Your task to perform on an android device: Turn on the flashlight Image 0: 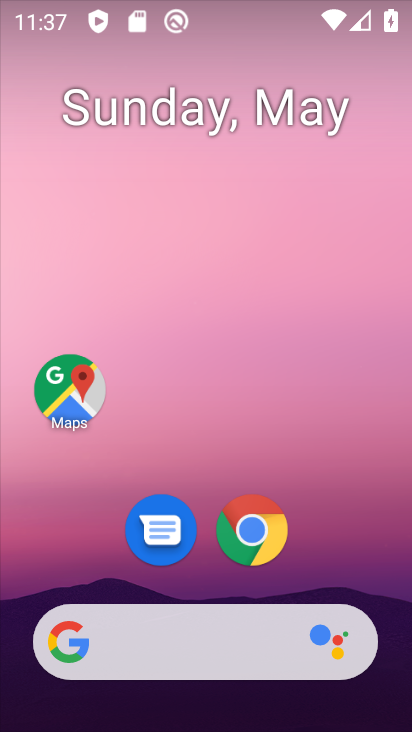
Step 0: drag from (220, 520) to (303, 37)
Your task to perform on an android device: Turn on the flashlight Image 1: 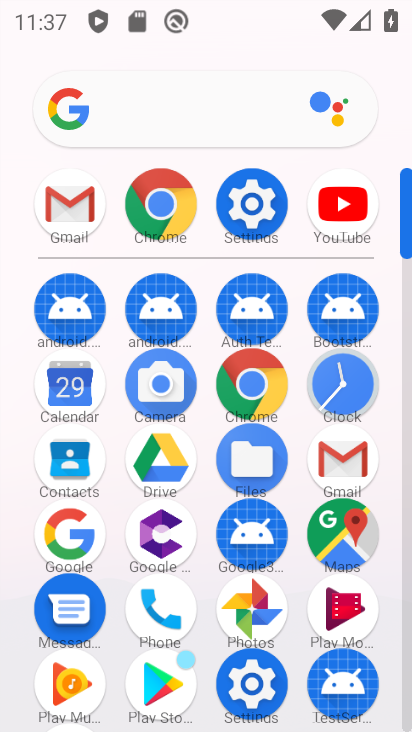
Step 1: click (244, 194)
Your task to perform on an android device: Turn on the flashlight Image 2: 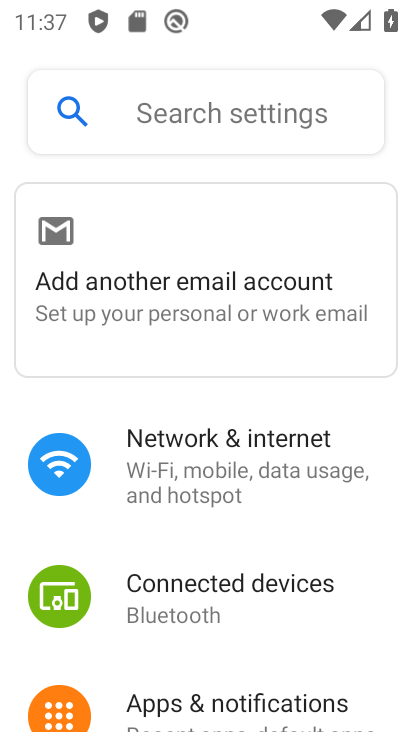
Step 2: click (158, 114)
Your task to perform on an android device: Turn on the flashlight Image 3: 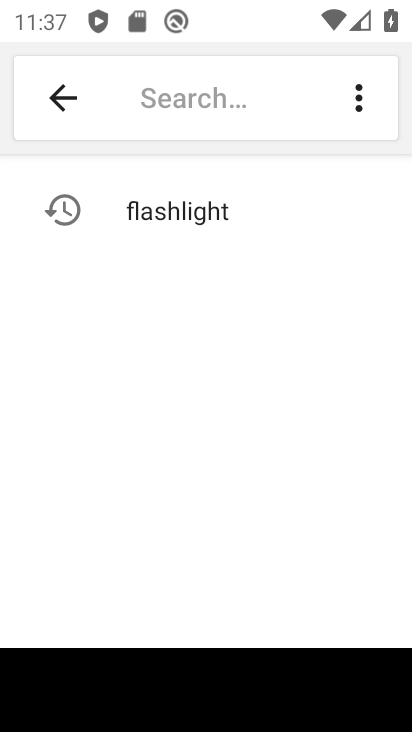
Step 3: type "flashlight"
Your task to perform on an android device: Turn on the flashlight Image 4: 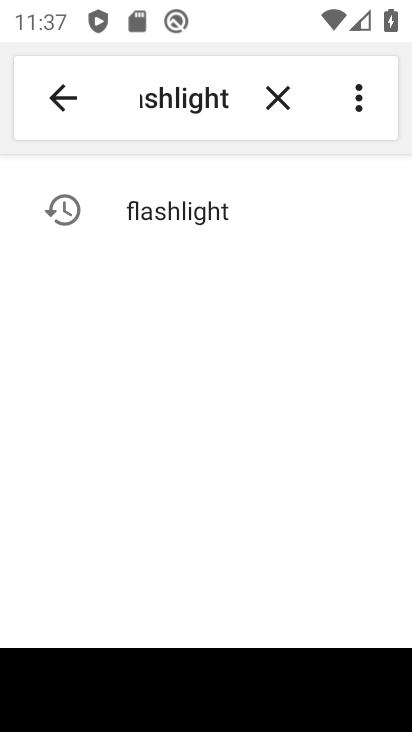
Step 4: click (153, 200)
Your task to perform on an android device: Turn on the flashlight Image 5: 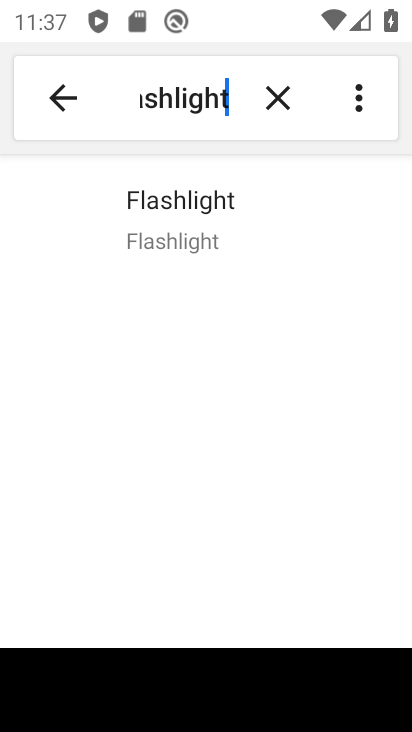
Step 5: click (210, 218)
Your task to perform on an android device: Turn on the flashlight Image 6: 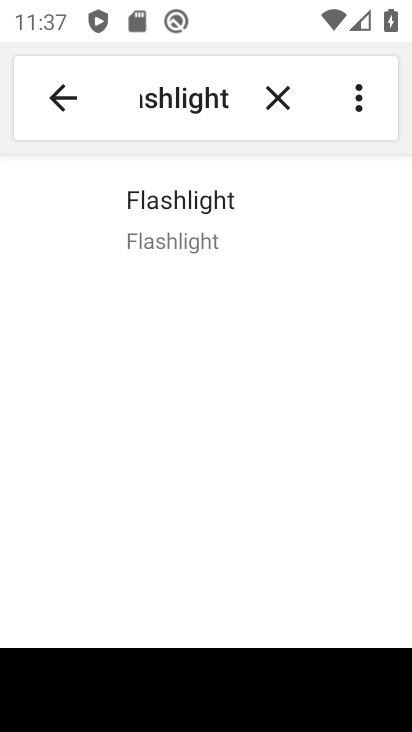
Step 6: task complete